Your task to perform on an android device: change notification settings in the gmail app Image 0: 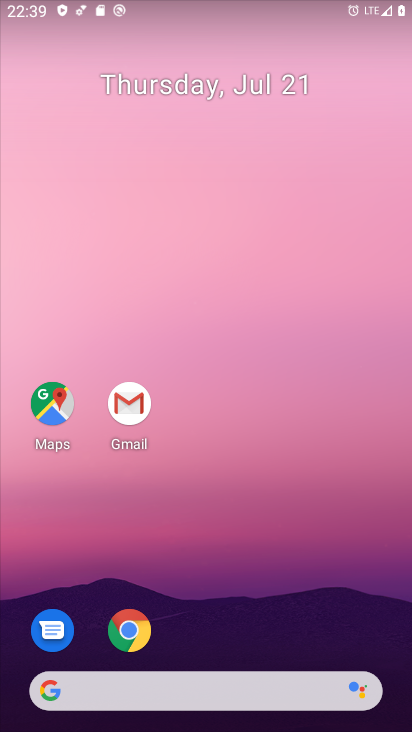
Step 0: drag from (319, 674) to (144, 82)
Your task to perform on an android device: change notification settings in the gmail app Image 1: 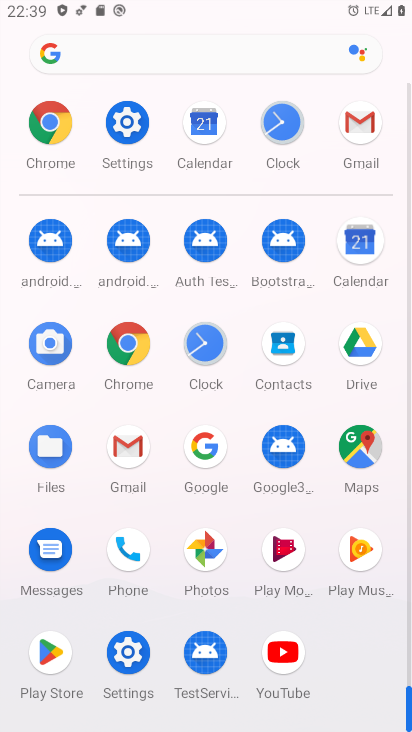
Step 1: click (117, 455)
Your task to perform on an android device: change notification settings in the gmail app Image 2: 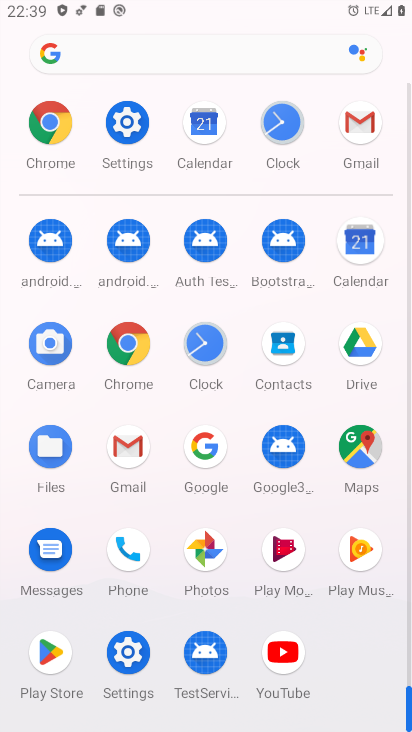
Step 2: click (109, 457)
Your task to perform on an android device: change notification settings in the gmail app Image 3: 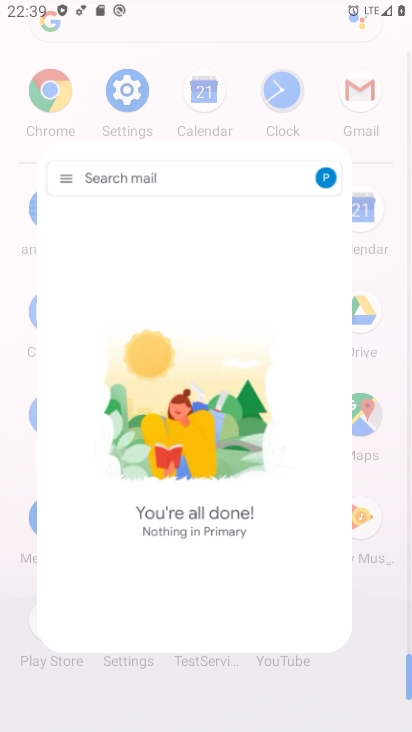
Step 3: click (119, 443)
Your task to perform on an android device: change notification settings in the gmail app Image 4: 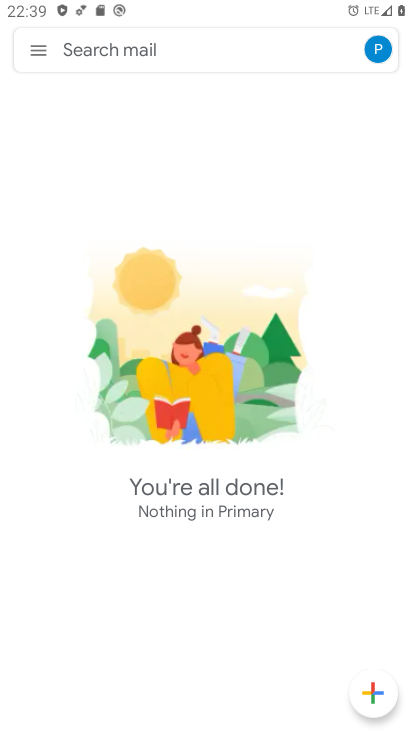
Step 4: click (127, 449)
Your task to perform on an android device: change notification settings in the gmail app Image 5: 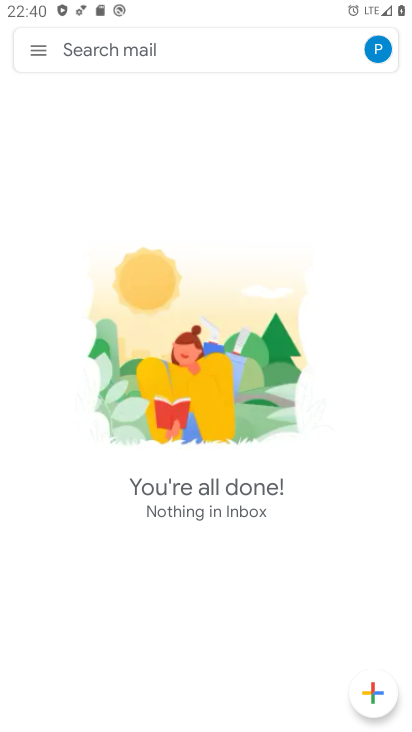
Step 5: click (41, 57)
Your task to perform on an android device: change notification settings in the gmail app Image 6: 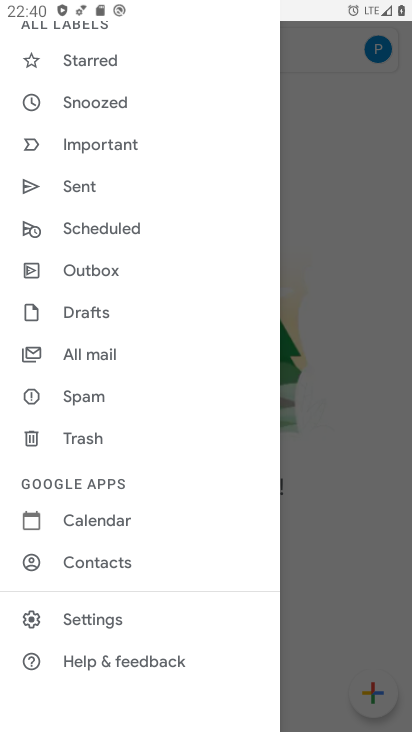
Step 6: click (93, 622)
Your task to perform on an android device: change notification settings in the gmail app Image 7: 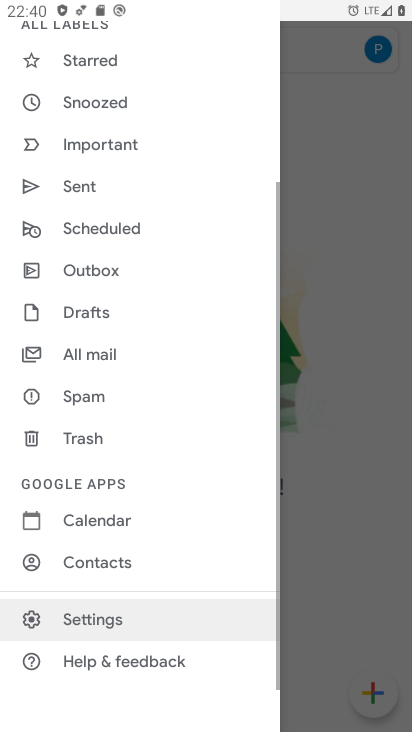
Step 7: click (92, 619)
Your task to perform on an android device: change notification settings in the gmail app Image 8: 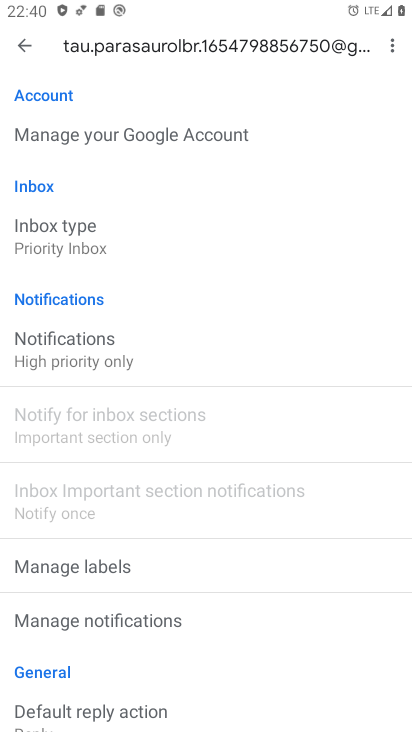
Step 8: click (59, 350)
Your task to perform on an android device: change notification settings in the gmail app Image 9: 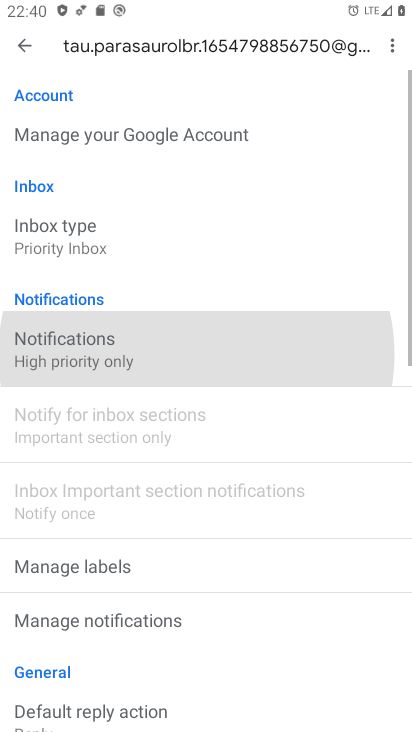
Step 9: click (55, 353)
Your task to perform on an android device: change notification settings in the gmail app Image 10: 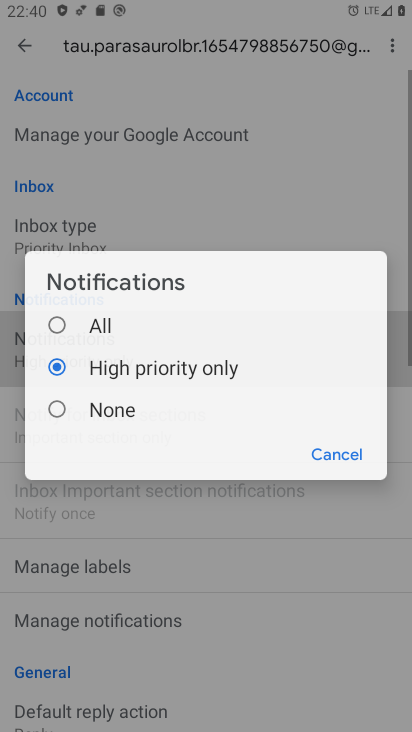
Step 10: click (54, 354)
Your task to perform on an android device: change notification settings in the gmail app Image 11: 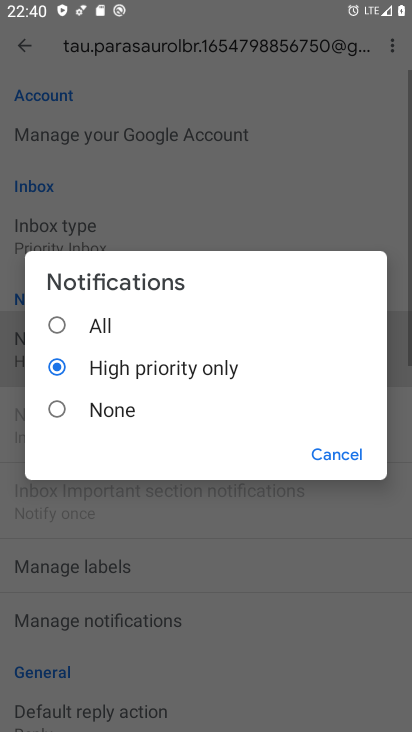
Step 11: click (54, 355)
Your task to perform on an android device: change notification settings in the gmail app Image 12: 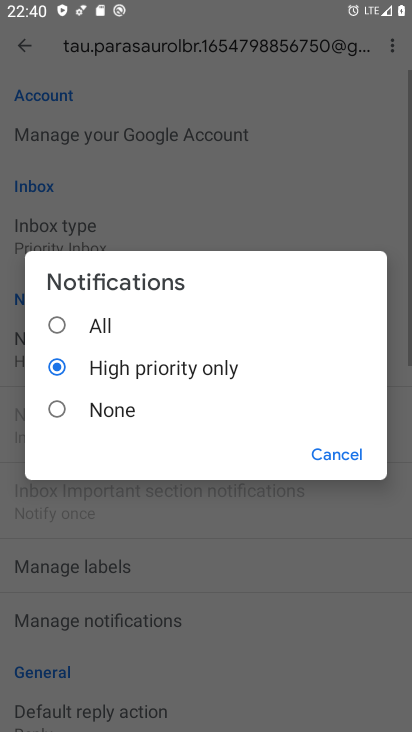
Step 12: click (40, 324)
Your task to perform on an android device: change notification settings in the gmail app Image 13: 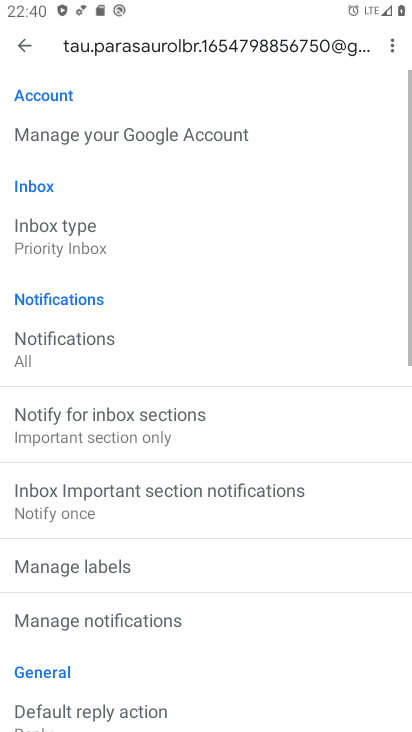
Step 13: click (54, 323)
Your task to perform on an android device: change notification settings in the gmail app Image 14: 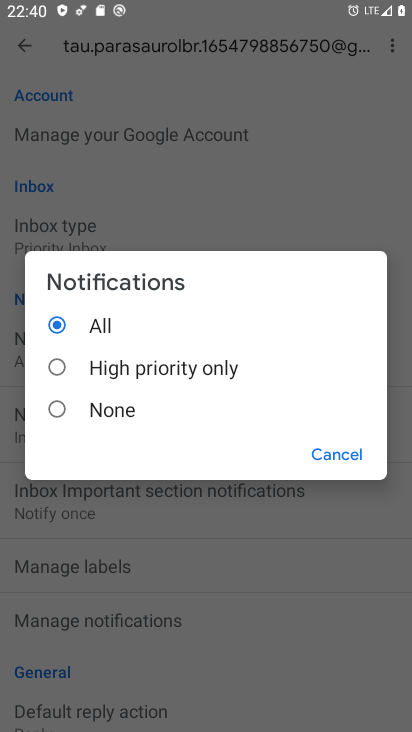
Step 14: click (354, 456)
Your task to perform on an android device: change notification settings in the gmail app Image 15: 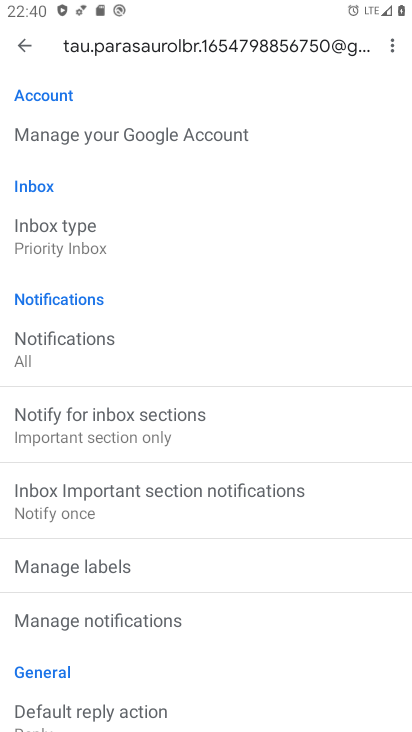
Step 15: task complete